Your task to perform on an android device: Open calendar and show me the first week of next month Image 0: 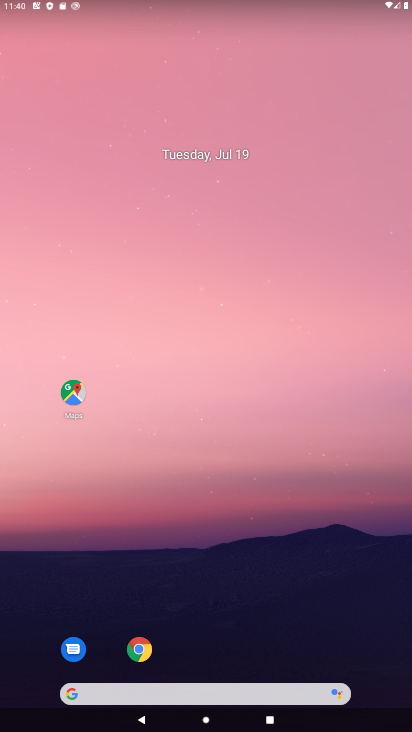
Step 0: drag from (174, 484) to (266, 35)
Your task to perform on an android device: Open calendar and show me the first week of next month Image 1: 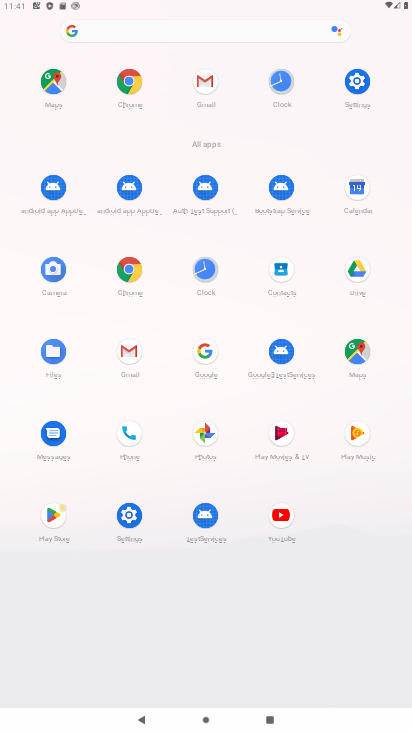
Step 1: click (353, 192)
Your task to perform on an android device: Open calendar and show me the first week of next month Image 2: 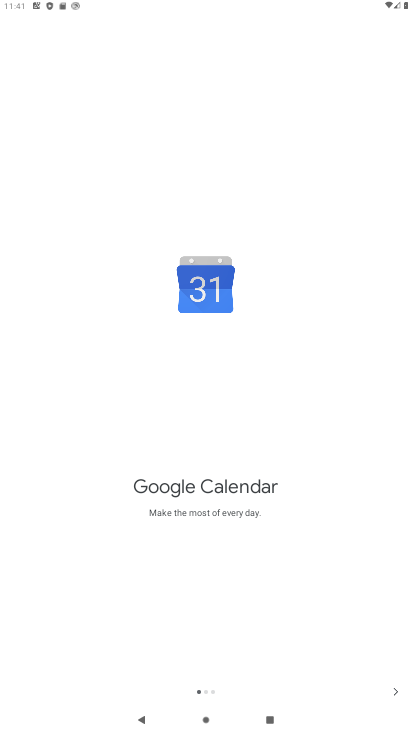
Step 2: click (392, 694)
Your task to perform on an android device: Open calendar and show me the first week of next month Image 3: 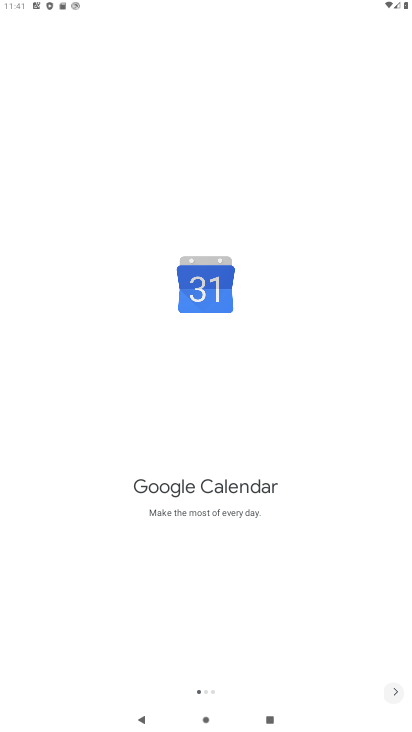
Step 3: click (392, 694)
Your task to perform on an android device: Open calendar and show me the first week of next month Image 4: 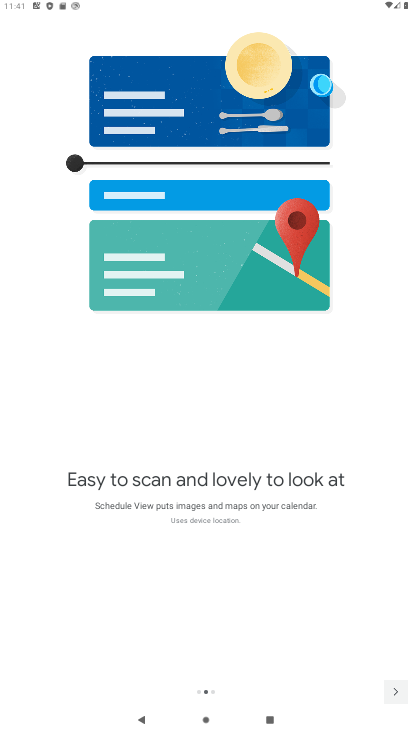
Step 4: click (392, 694)
Your task to perform on an android device: Open calendar and show me the first week of next month Image 5: 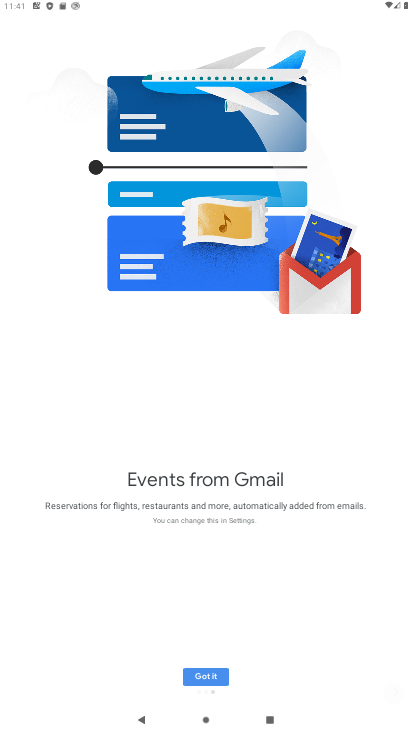
Step 5: click (392, 694)
Your task to perform on an android device: Open calendar and show me the first week of next month Image 6: 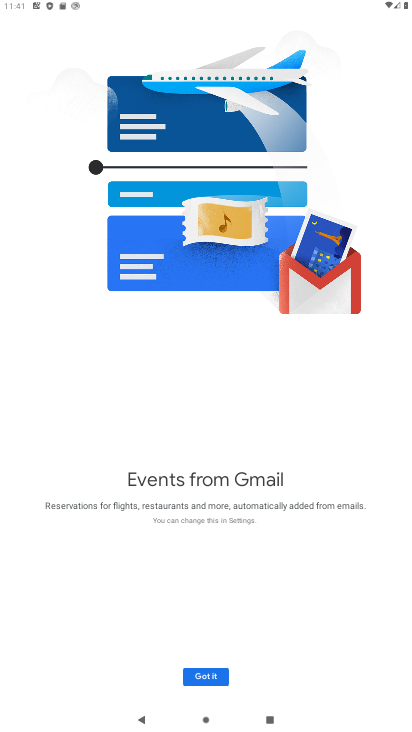
Step 6: click (392, 694)
Your task to perform on an android device: Open calendar and show me the first week of next month Image 7: 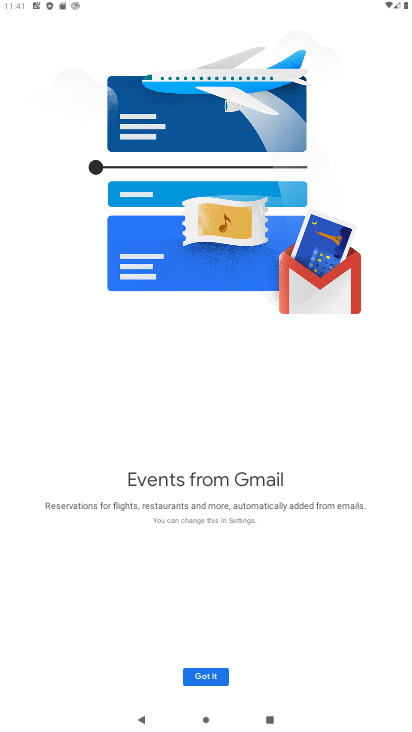
Step 7: click (392, 694)
Your task to perform on an android device: Open calendar and show me the first week of next month Image 8: 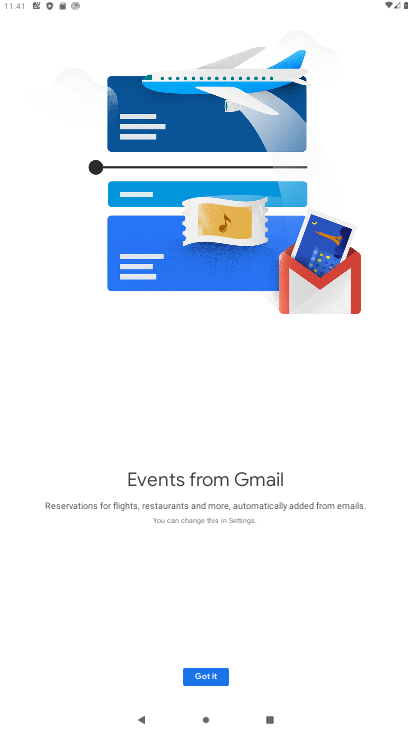
Step 8: click (209, 672)
Your task to perform on an android device: Open calendar and show me the first week of next month Image 9: 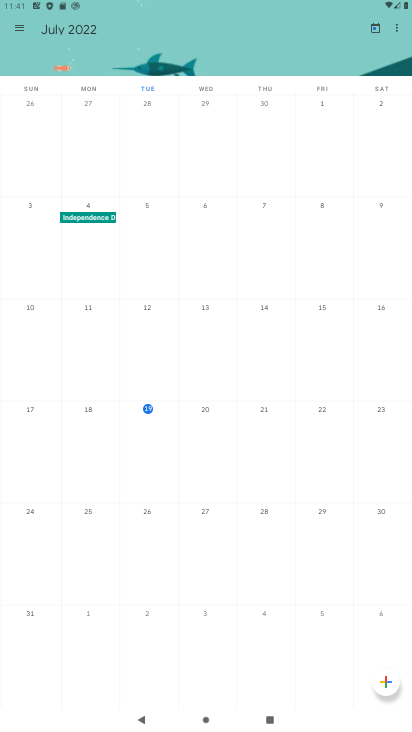
Step 9: task complete